Your task to perform on an android device: Open network settings Image 0: 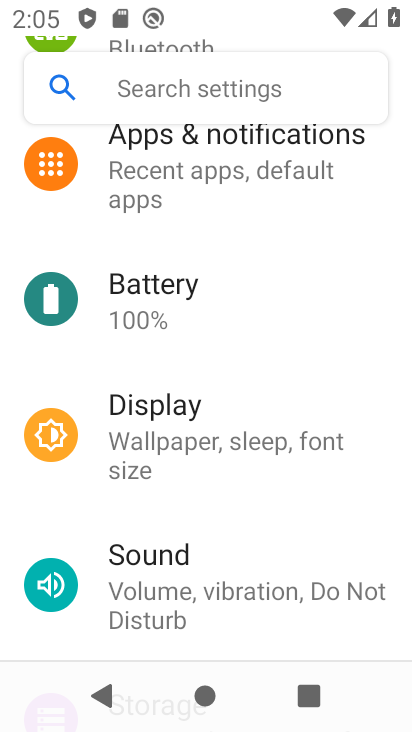
Step 0: drag from (222, 236) to (198, 462)
Your task to perform on an android device: Open network settings Image 1: 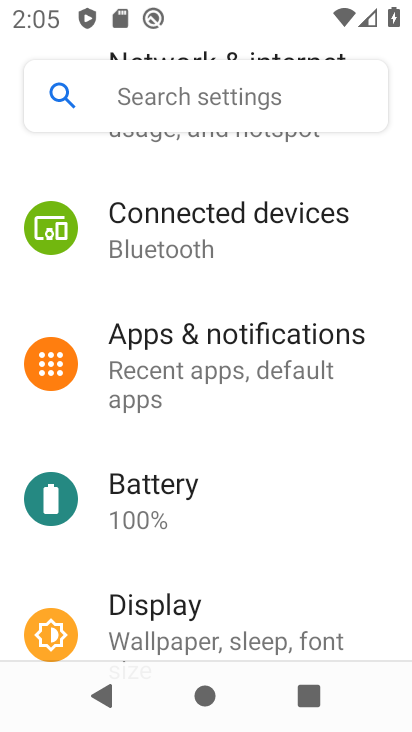
Step 1: drag from (192, 267) to (191, 520)
Your task to perform on an android device: Open network settings Image 2: 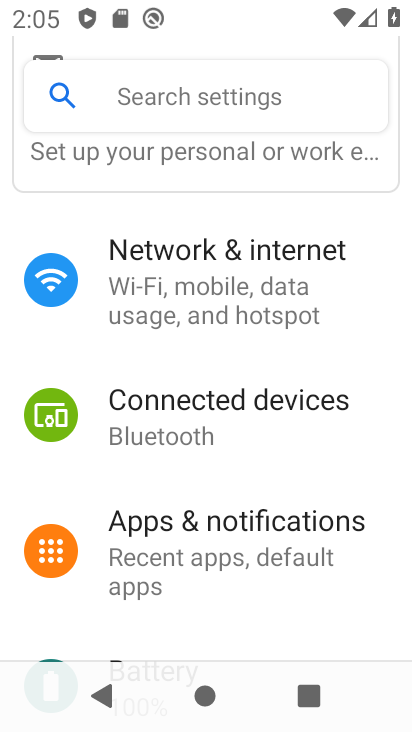
Step 2: click (241, 283)
Your task to perform on an android device: Open network settings Image 3: 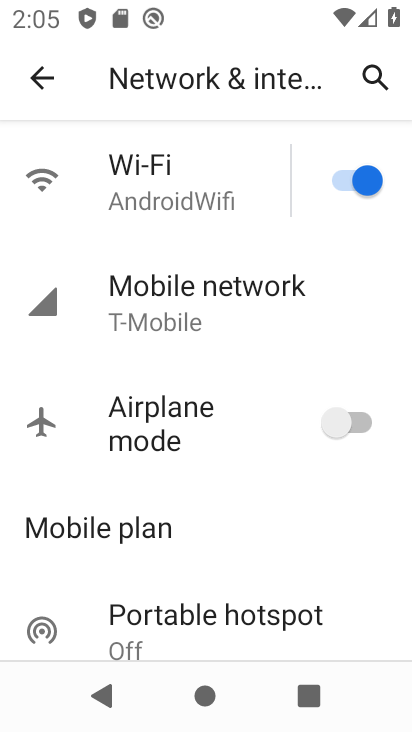
Step 3: click (196, 300)
Your task to perform on an android device: Open network settings Image 4: 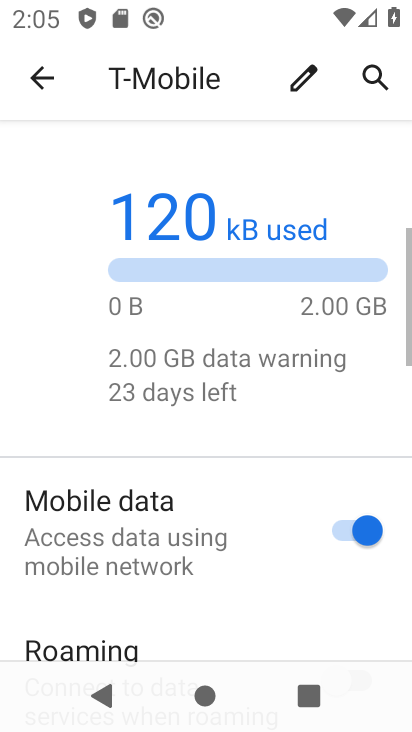
Step 4: task complete